Your task to perform on an android device: Open eBay Image 0: 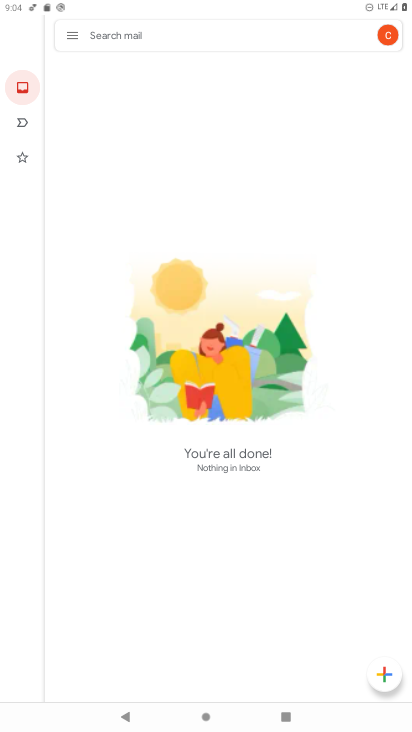
Step 0: press home button
Your task to perform on an android device: Open eBay Image 1: 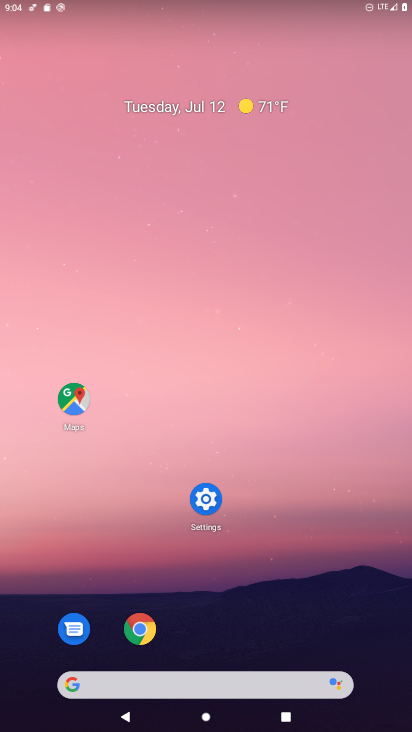
Step 1: click (139, 623)
Your task to perform on an android device: Open eBay Image 2: 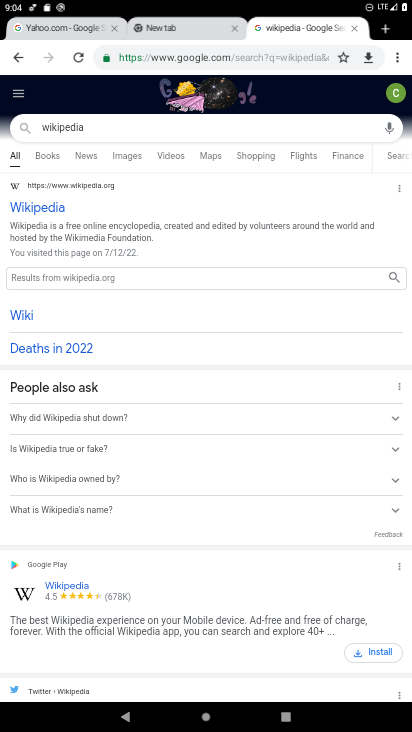
Step 2: click (334, 55)
Your task to perform on an android device: Open eBay Image 3: 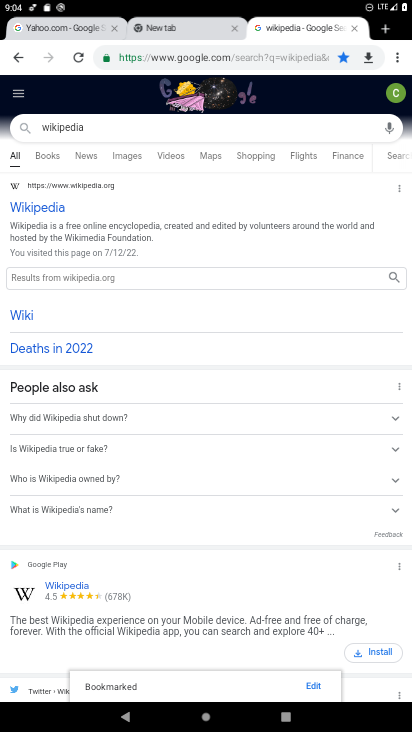
Step 3: click (343, 53)
Your task to perform on an android device: Open eBay Image 4: 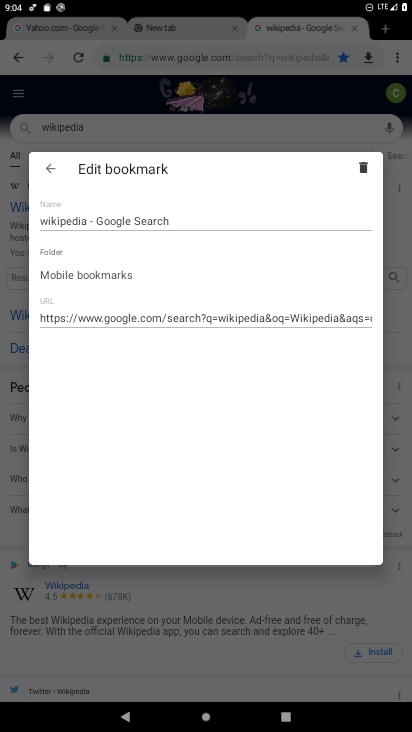
Step 4: click (306, 59)
Your task to perform on an android device: Open eBay Image 5: 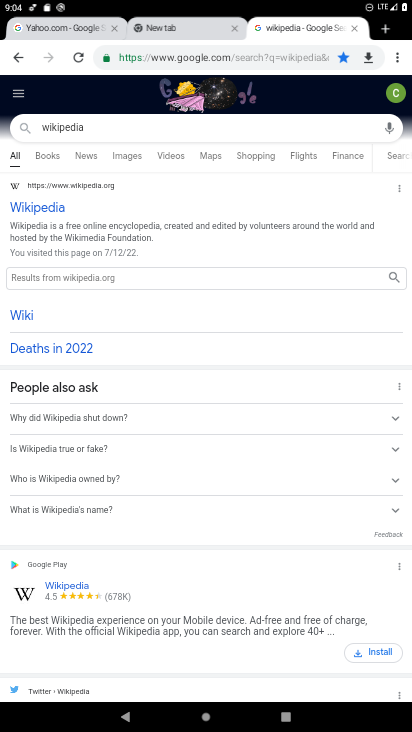
Step 5: click (296, 56)
Your task to perform on an android device: Open eBay Image 6: 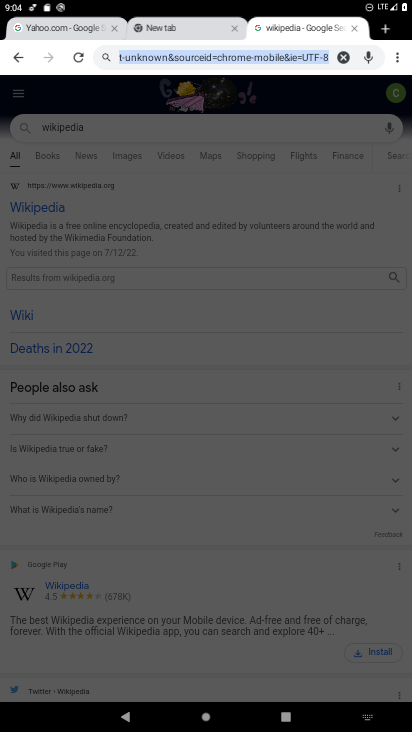
Step 6: click (346, 60)
Your task to perform on an android device: Open eBay Image 7: 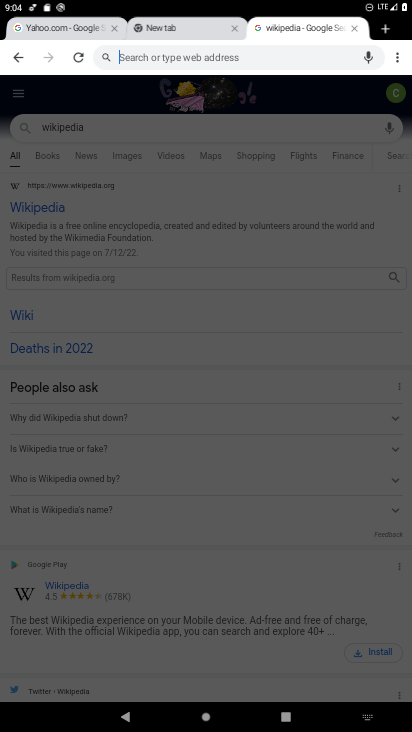
Step 7: type "eBay"
Your task to perform on an android device: Open eBay Image 8: 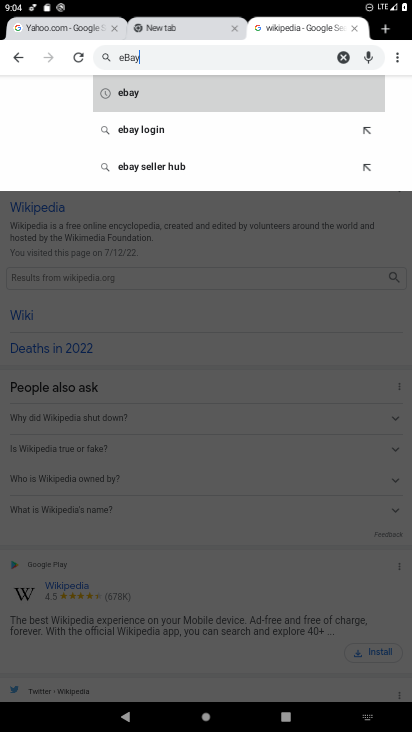
Step 8: click (127, 87)
Your task to perform on an android device: Open eBay Image 9: 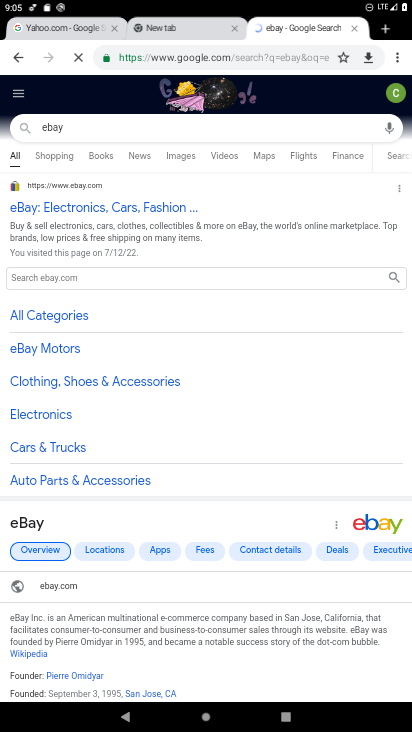
Step 9: task complete